Your task to perform on an android device: Turn off the flashlight Image 0: 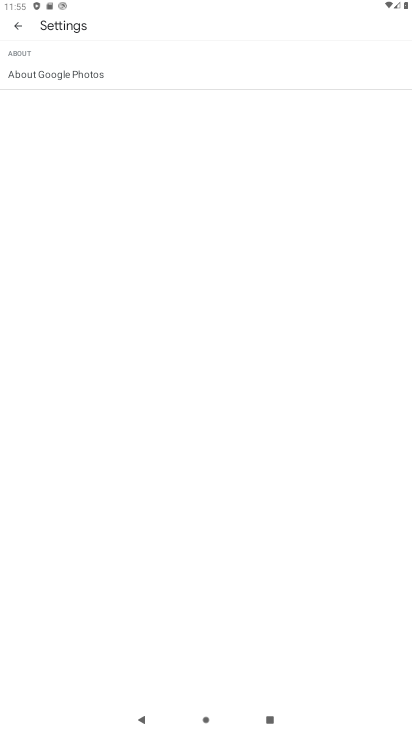
Step 0: drag from (288, 3) to (290, 490)
Your task to perform on an android device: Turn off the flashlight Image 1: 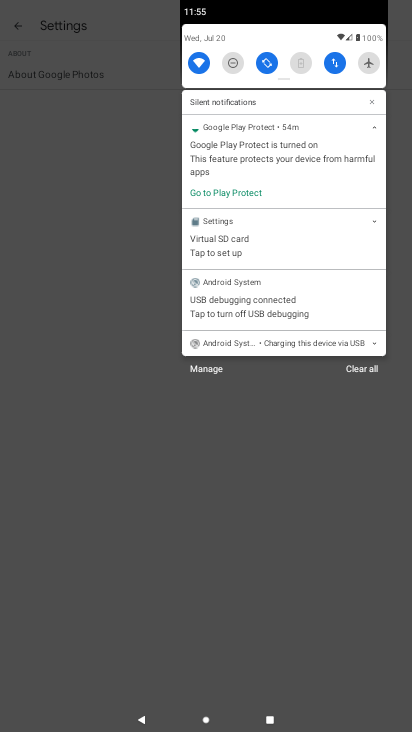
Step 1: task complete